Your task to perform on an android device: Open Yahoo.com Image 0: 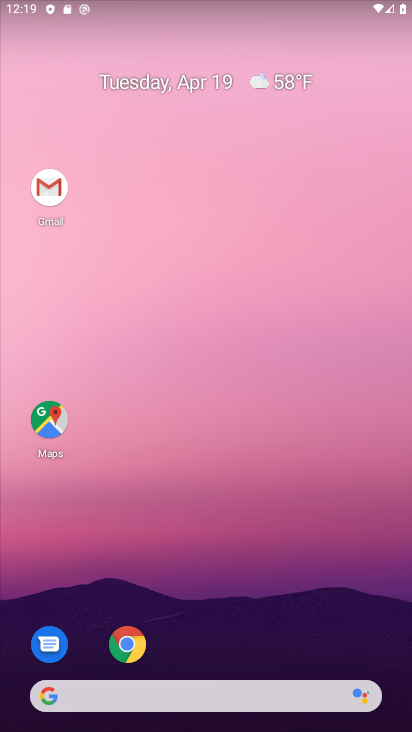
Step 0: click (133, 648)
Your task to perform on an android device: Open Yahoo.com Image 1: 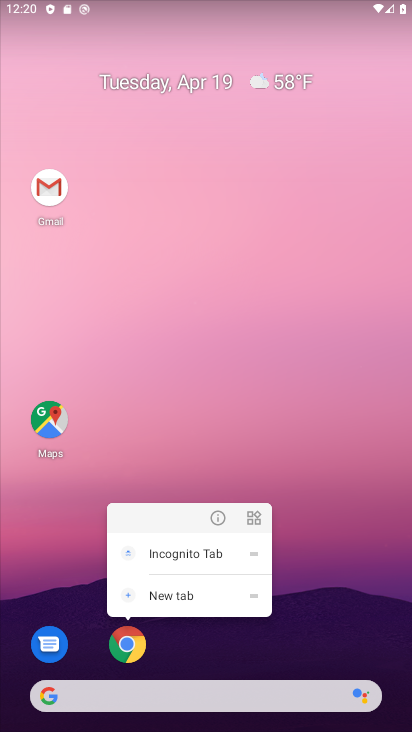
Step 1: click (134, 644)
Your task to perform on an android device: Open Yahoo.com Image 2: 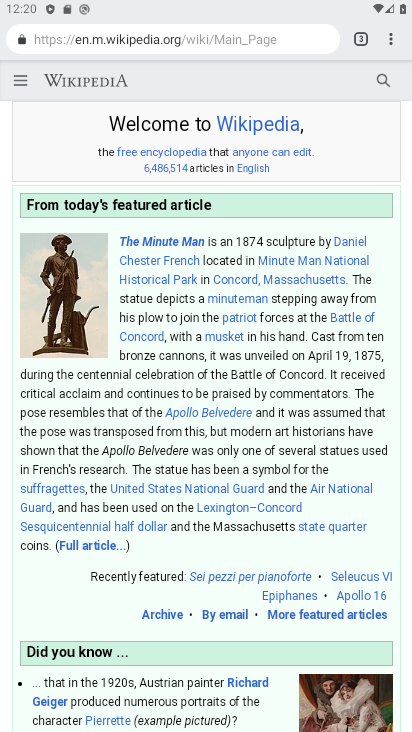
Step 2: click (368, 34)
Your task to perform on an android device: Open Yahoo.com Image 3: 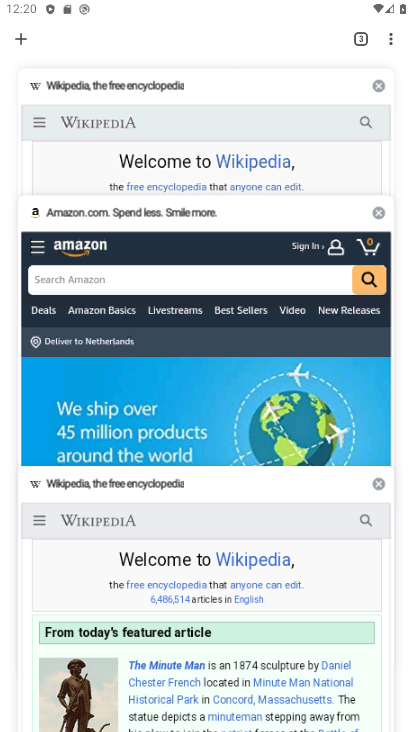
Step 3: click (28, 43)
Your task to perform on an android device: Open Yahoo.com Image 4: 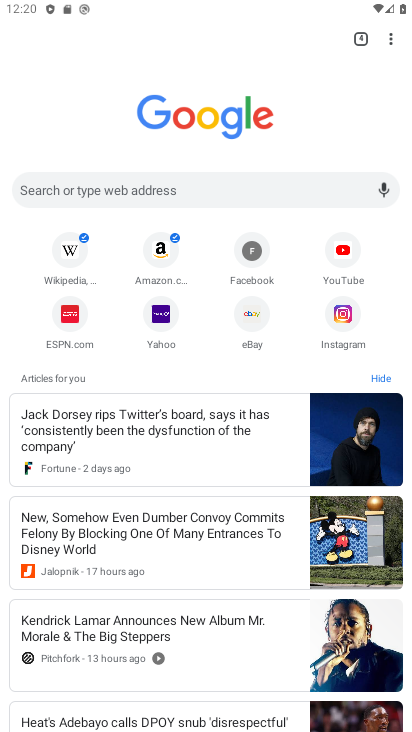
Step 4: click (170, 323)
Your task to perform on an android device: Open Yahoo.com Image 5: 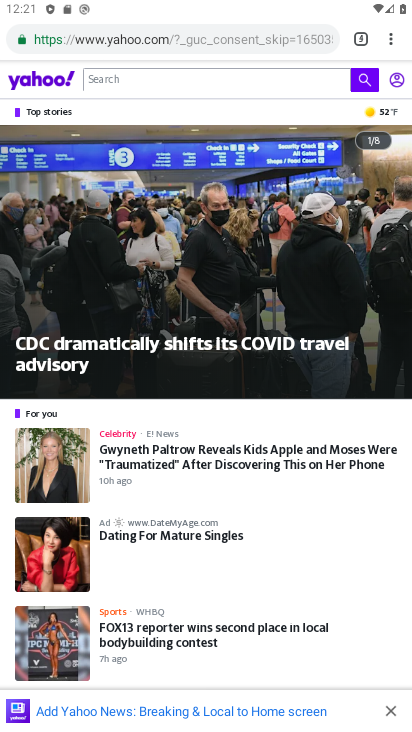
Step 5: task complete